Your task to perform on an android device: open app "Expedia: Hotels, Flights & Car" Image 0: 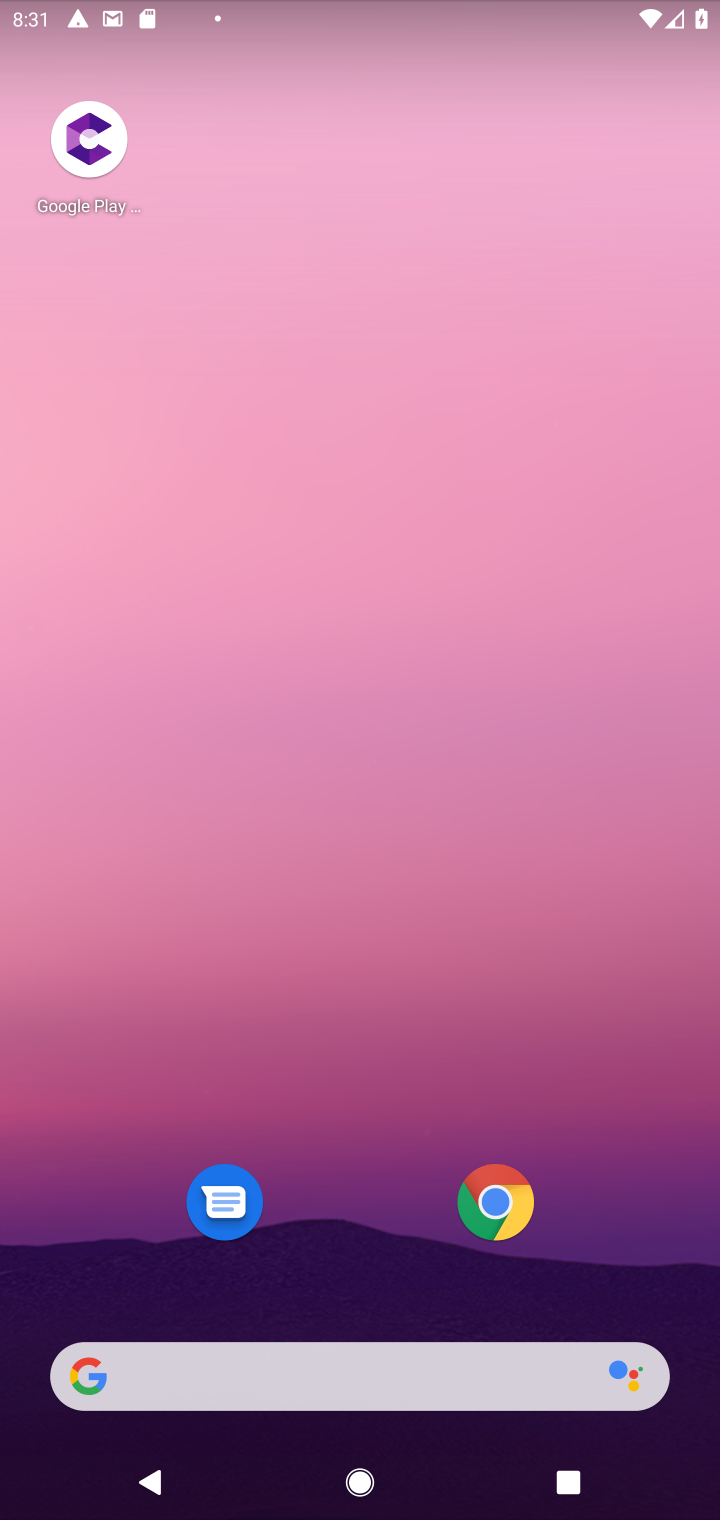
Step 0: type "Expedia: Hotels, Flights & Car"
Your task to perform on an android device: open app "Expedia: Hotels, Flights & Car" Image 1: 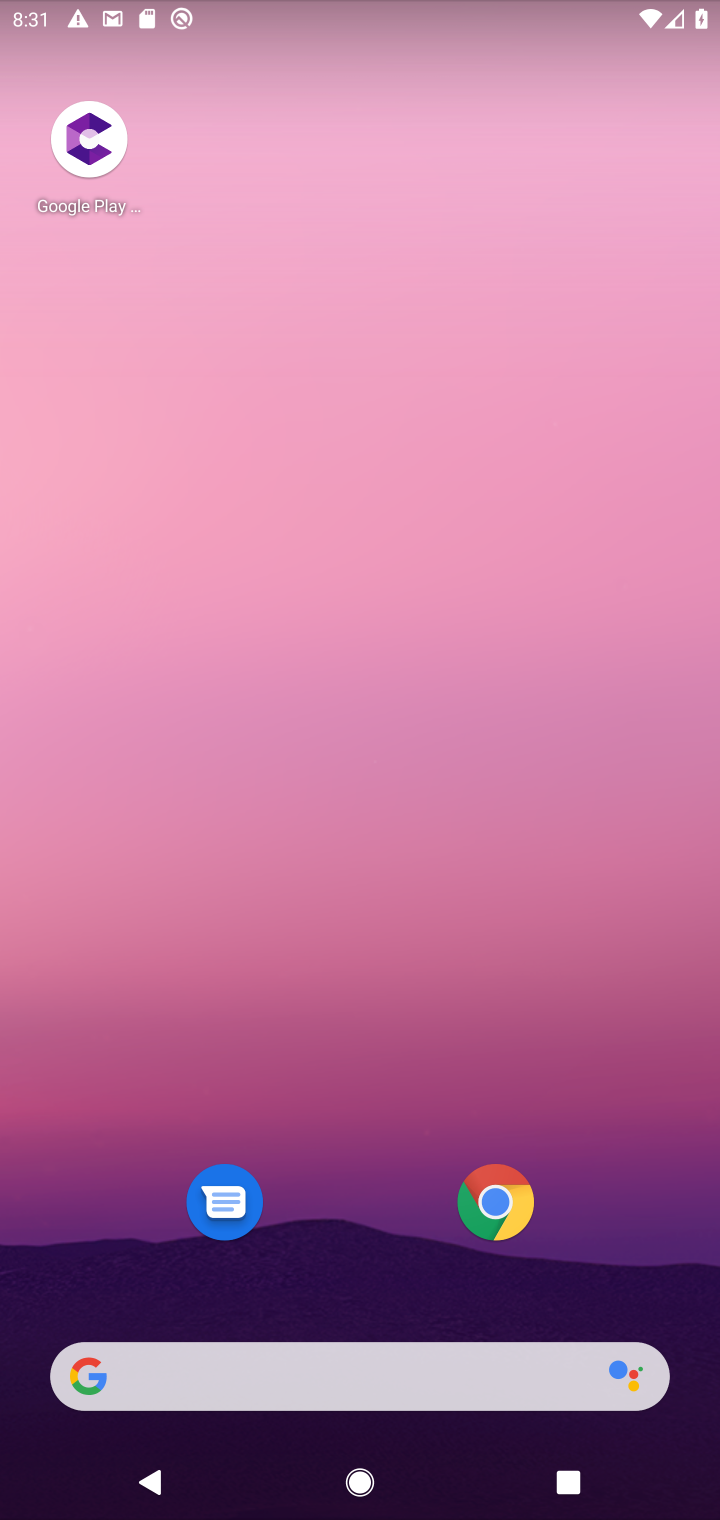
Step 1: drag from (595, 266) to (360, 384)
Your task to perform on an android device: open app "Expedia: Hotels, Flights & Car" Image 2: 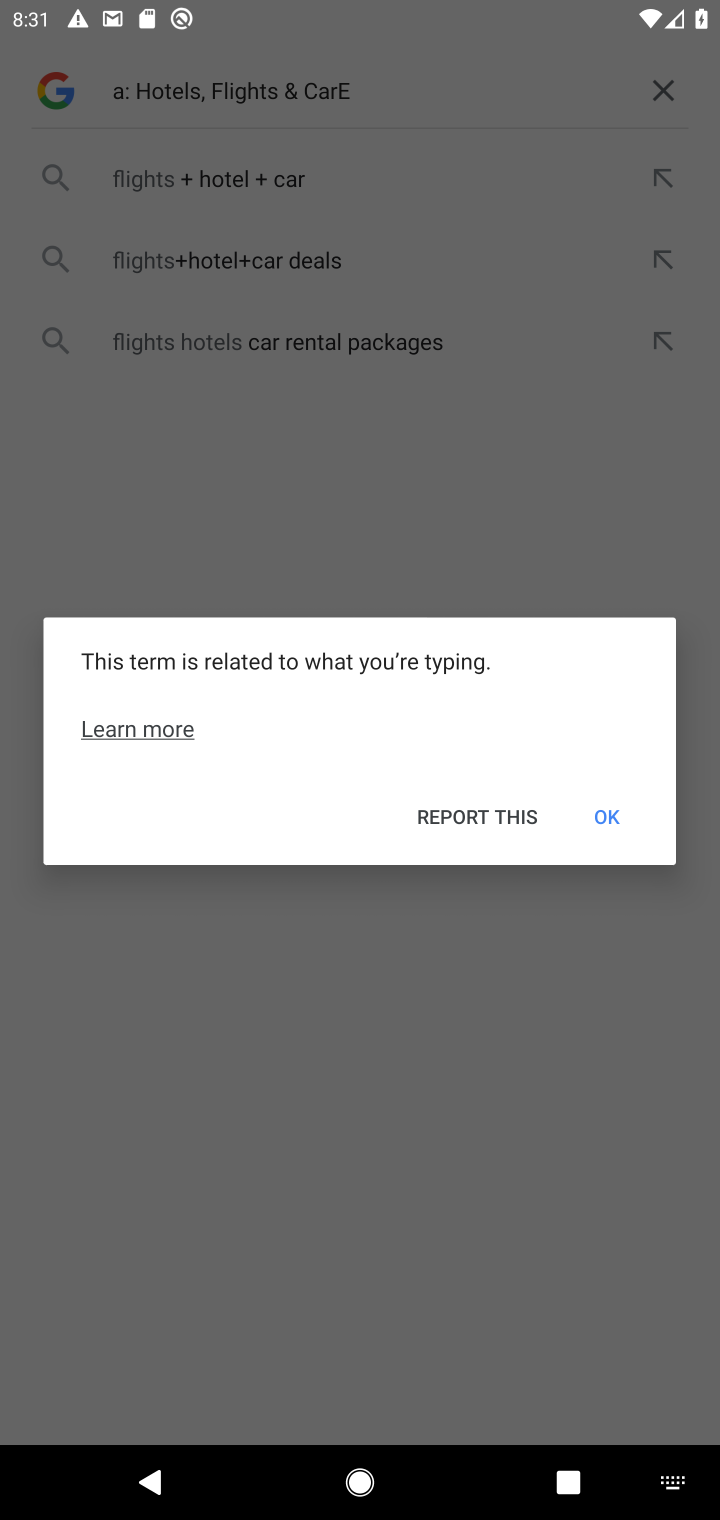
Step 2: press home button
Your task to perform on an android device: open app "Expedia: Hotels, Flights & Car" Image 3: 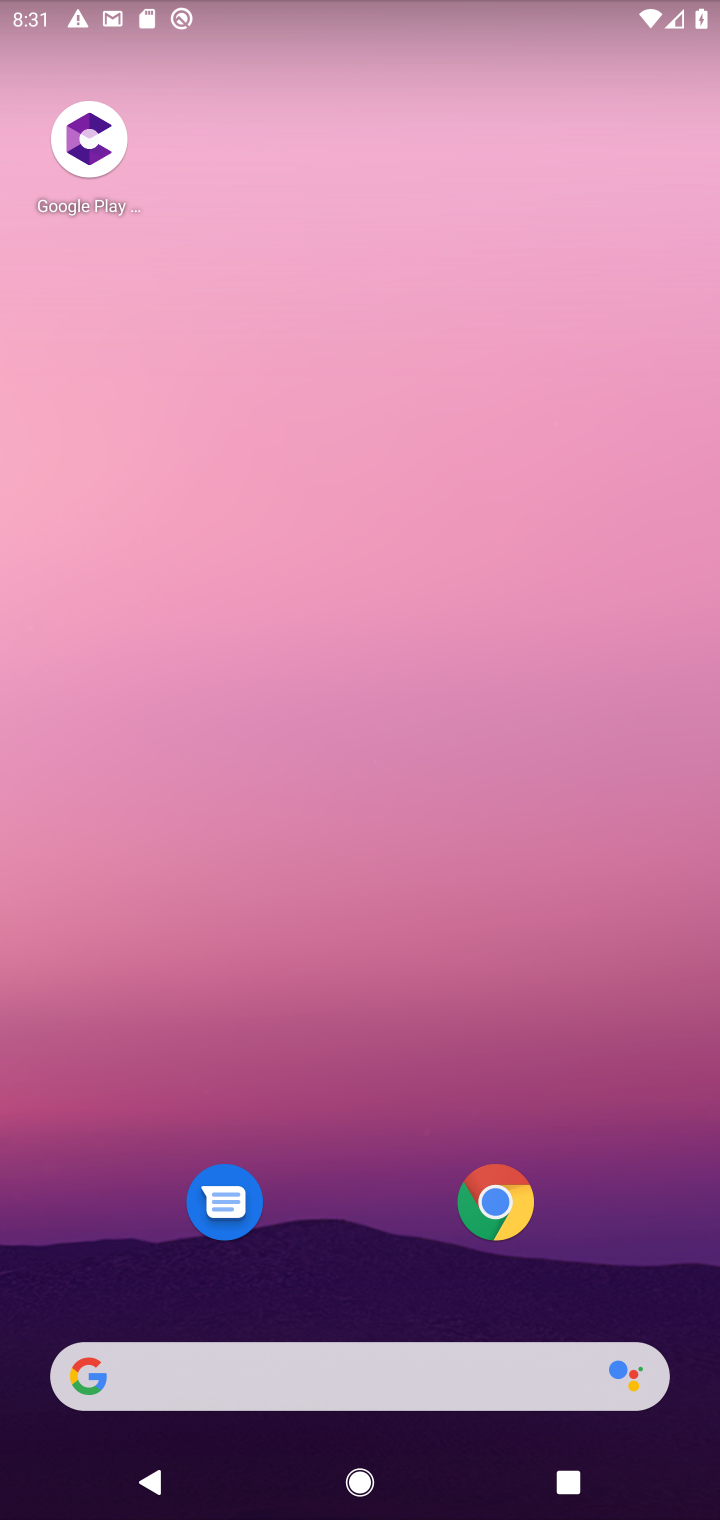
Step 3: drag from (354, 902) to (386, 93)
Your task to perform on an android device: open app "Expedia: Hotels, Flights & Car" Image 4: 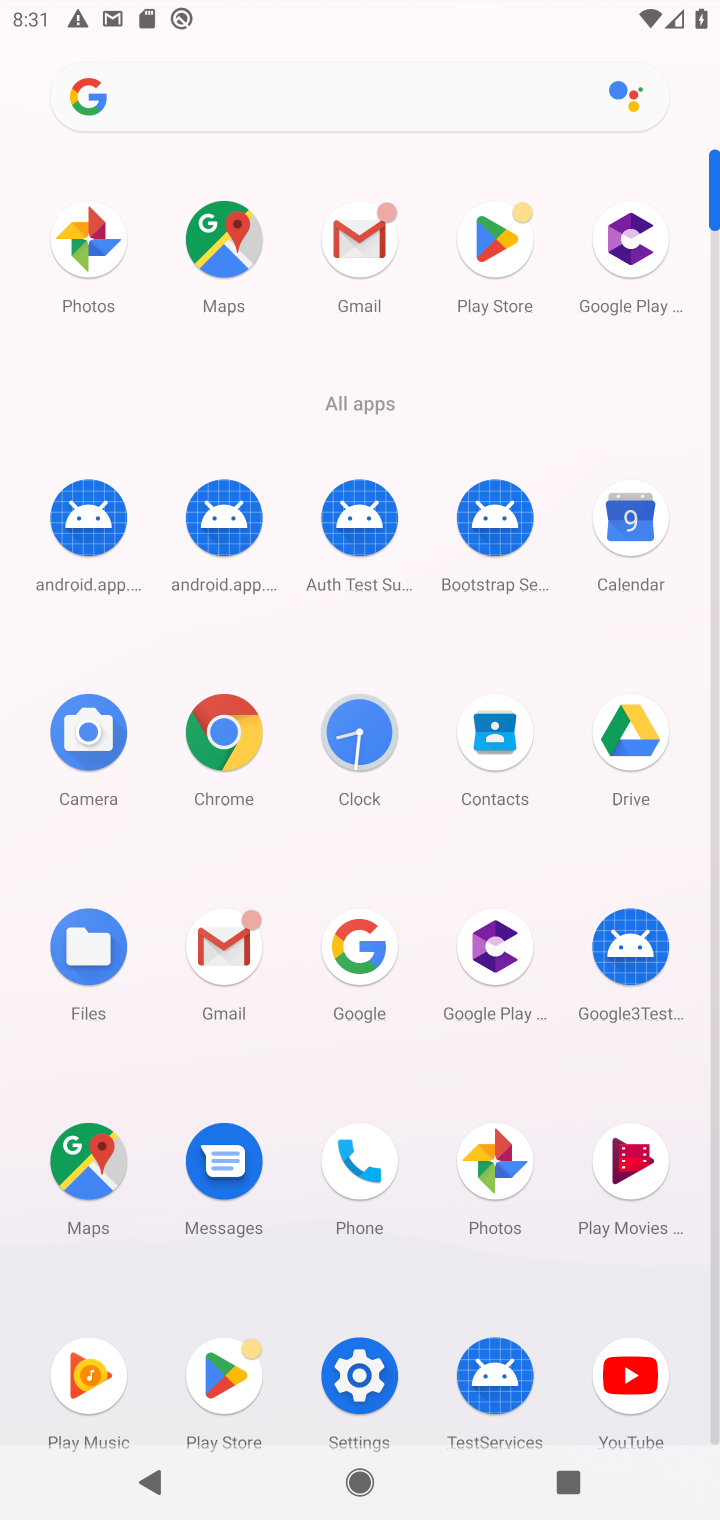
Step 4: click (482, 263)
Your task to perform on an android device: open app "Expedia: Hotels, Flights & Car" Image 5: 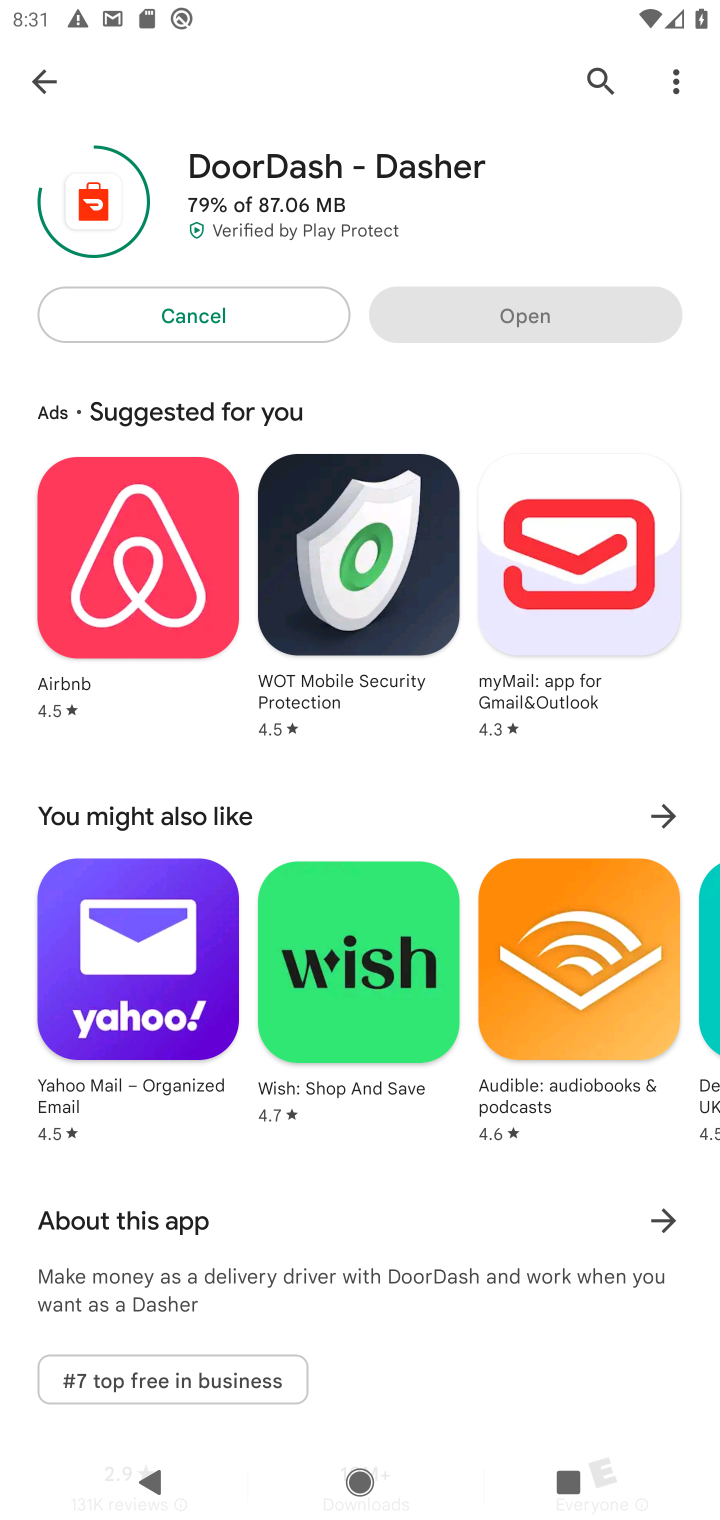
Step 5: press back button
Your task to perform on an android device: open app "Expedia: Hotels, Flights & Car" Image 6: 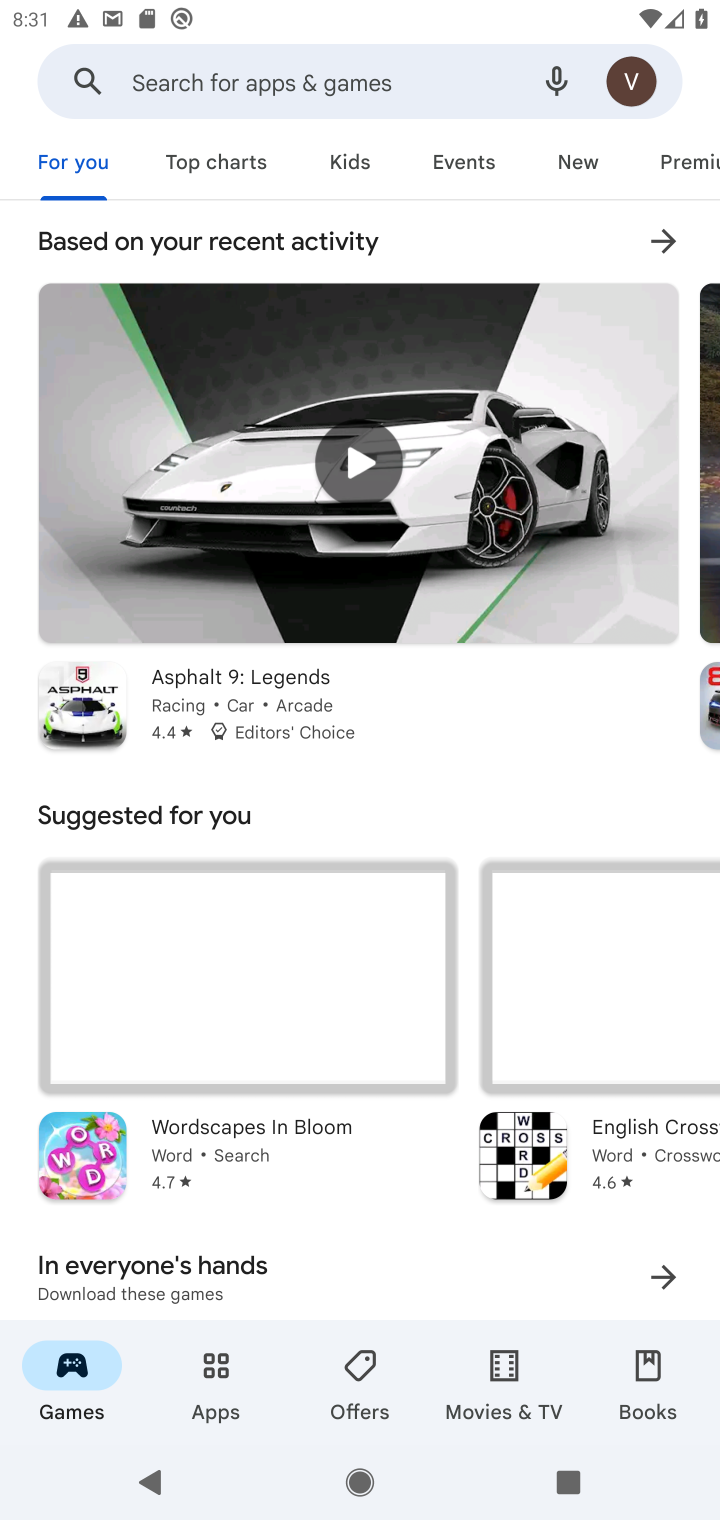
Step 6: click (282, 71)
Your task to perform on an android device: open app "Expedia: Hotels, Flights & Car" Image 7: 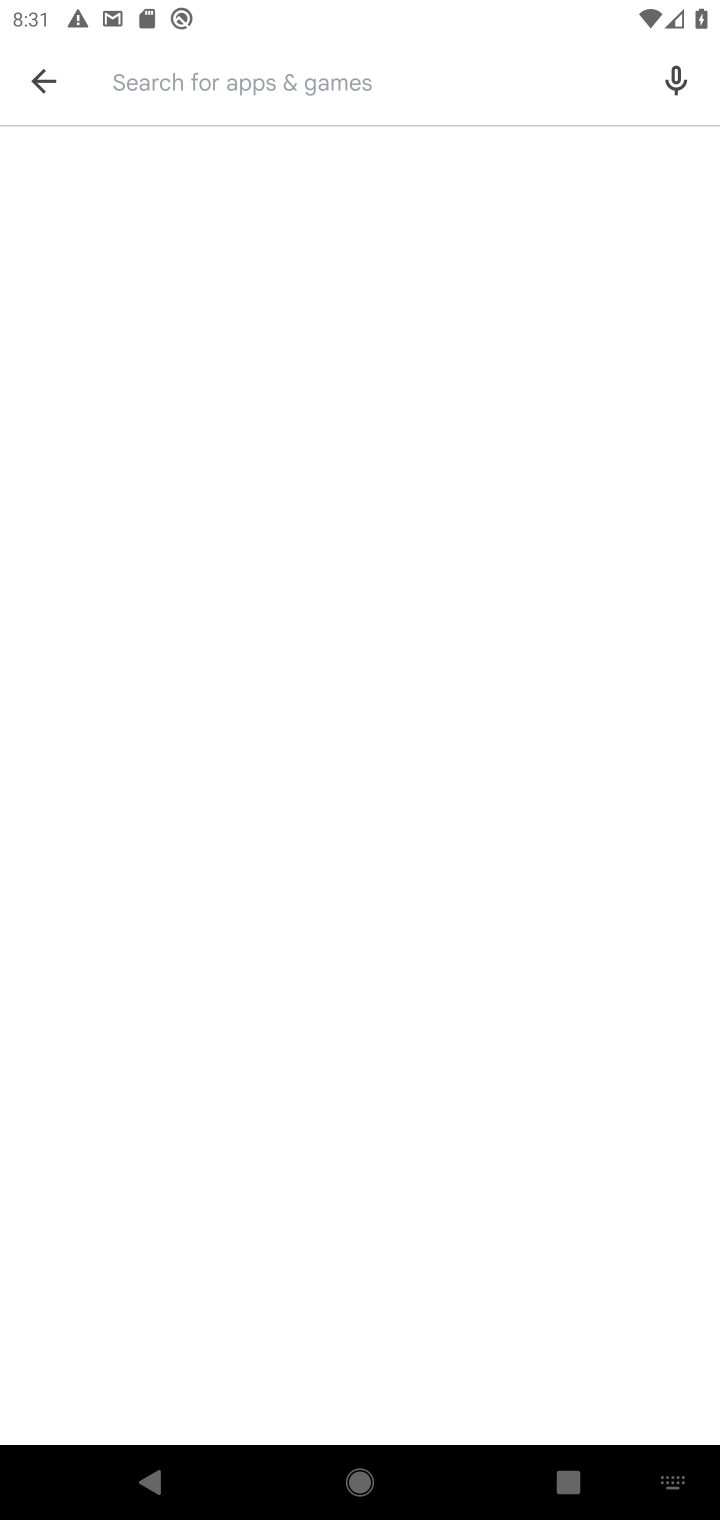
Step 7: type "Expedia: Hotels, Flights & Car"
Your task to perform on an android device: open app "Expedia: Hotels, Flights & Car" Image 8: 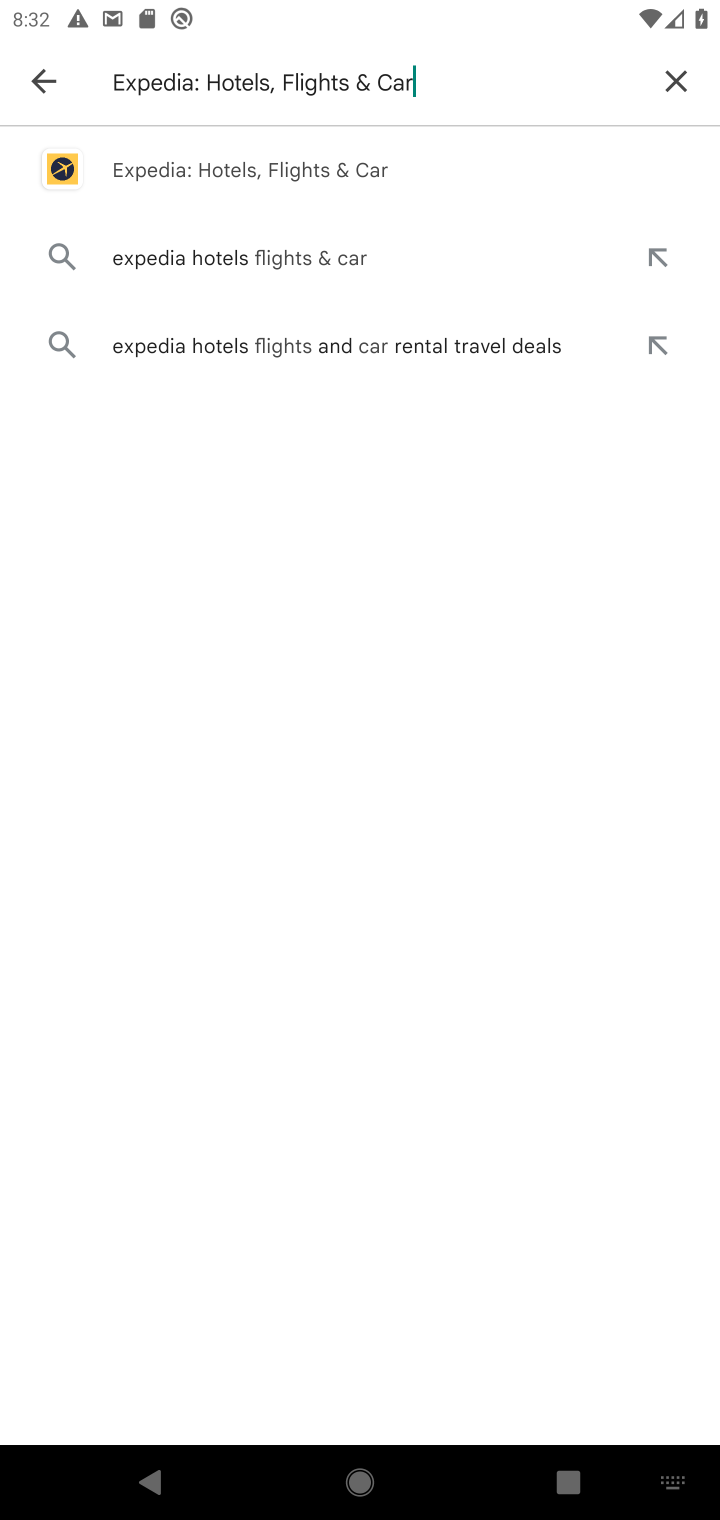
Step 8: click (203, 169)
Your task to perform on an android device: open app "Expedia: Hotels, Flights & Car" Image 9: 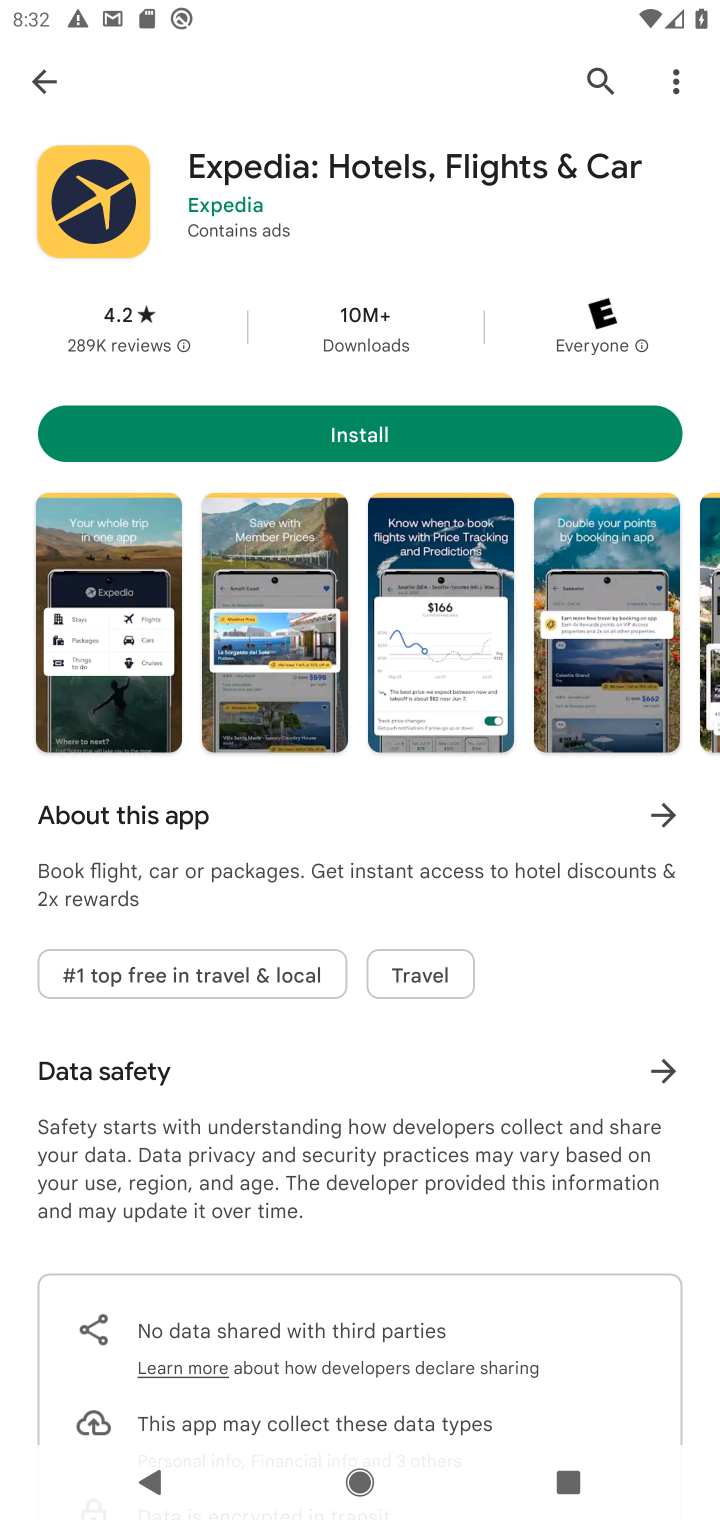
Step 9: task complete